Your task to perform on an android device: Clear the cart on amazon. Add "bose soundsport free" to the cart on amazon Image 0: 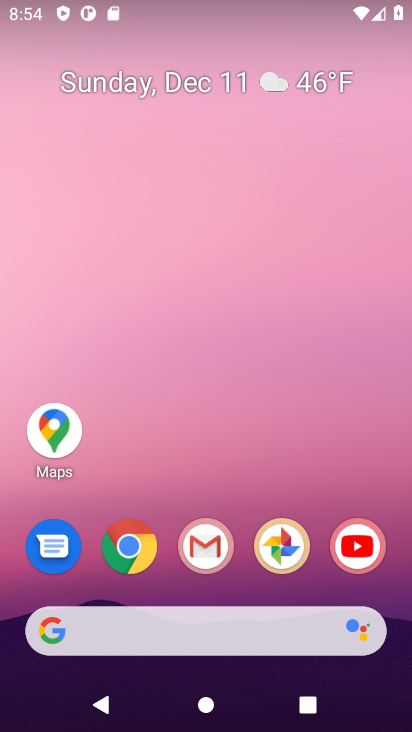
Step 0: click (127, 550)
Your task to perform on an android device: Clear the cart on amazon. Add "bose soundsport free" to the cart on amazon Image 1: 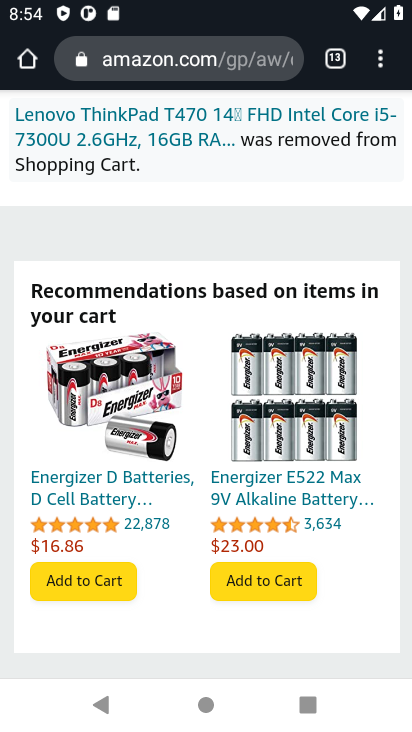
Step 1: drag from (315, 211) to (361, 588)
Your task to perform on an android device: Clear the cart on amazon. Add "bose soundsport free" to the cart on amazon Image 2: 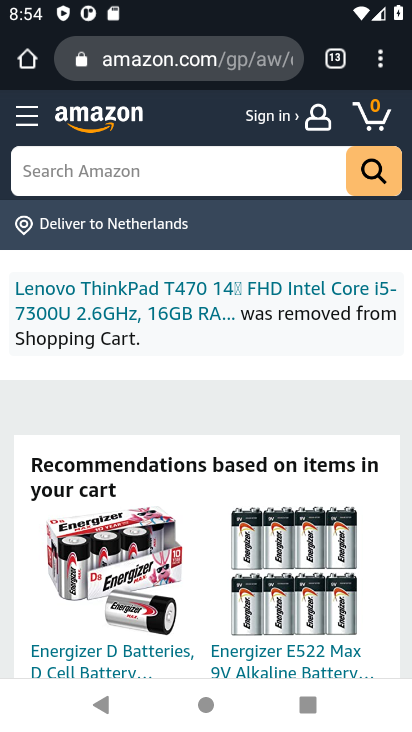
Step 2: click (372, 114)
Your task to perform on an android device: Clear the cart on amazon. Add "bose soundsport free" to the cart on amazon Image 3: 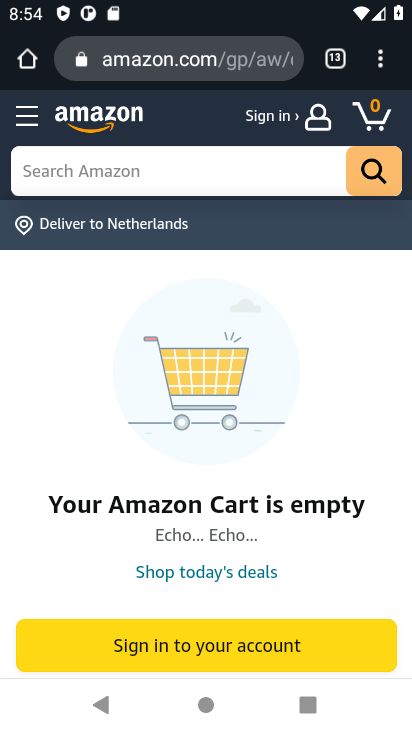
Step 3: click (112, 174)
Your task to perform on an android device: Clear the cart on amazon. Add "bose soundsport free" to the cart on amazon Image 4: 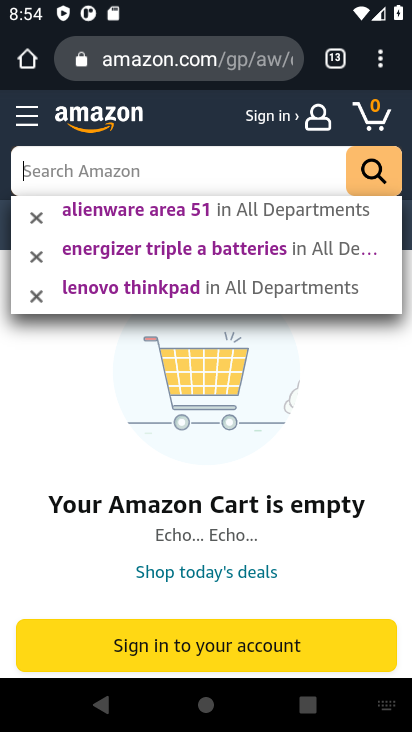
Step 4: type "bose soundsport free"
Your task to perform on an android device: Clear the cart on amazon. Add "bose soundsport free" to the cart on amazon Image 5: 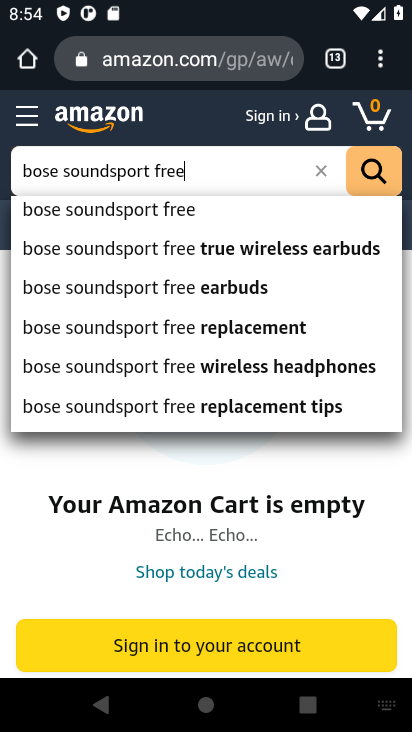
Step 5: click (147, 212)
Your task to perform on an android device: Clear the cart on amazon. Add "bose soundsport free" to the cart on amazon Image 6: 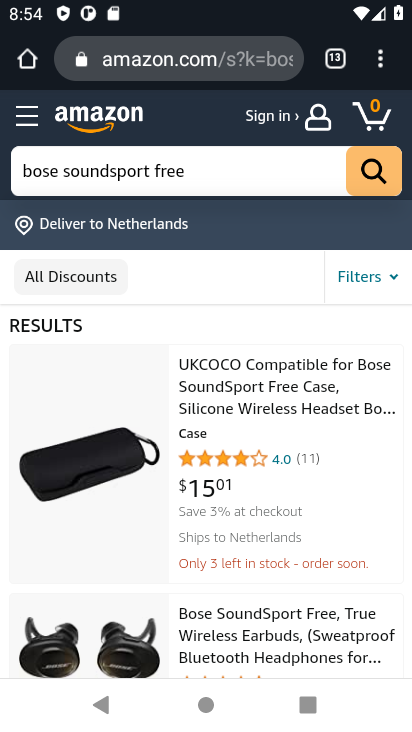
Step 6: drag from (215, 539) to (177, 277)
Your task to perform on an android device: Clear the cart on amazon. Add "bose soundsport free" to the cart on amazon Image 7: 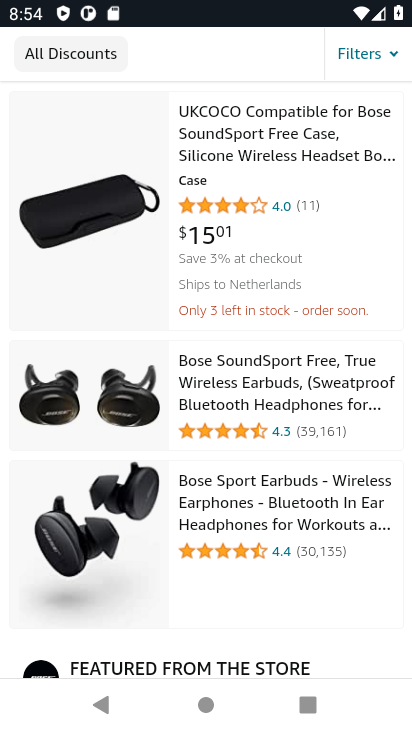
Step 7: click (209, 395)
Your task to perform on an android device: Clear the cart on amazon. Add "bose soundsport free" to the cart on amazon Image 8: 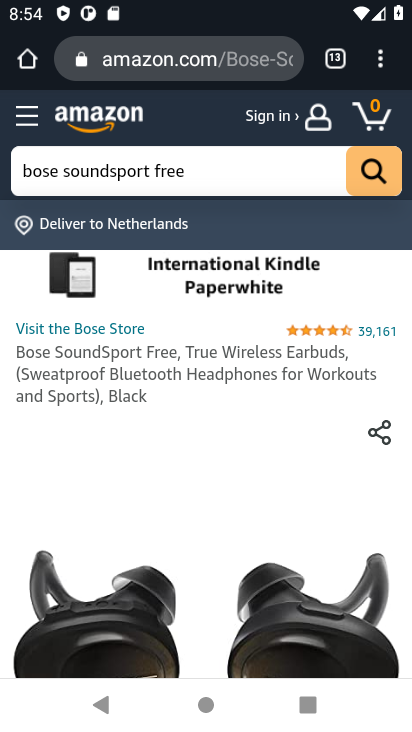
Step 8: task complete